Your task to perform on an android device: Open Yahoo.com Image 0: 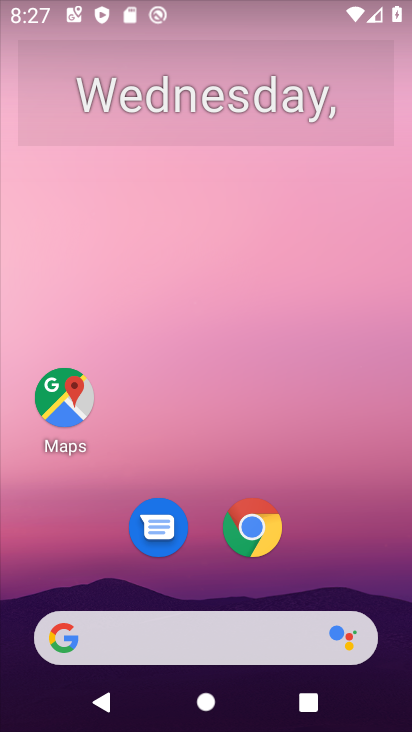
Step 0: click (256, 531)
Your task to perform on an android device: Open Yahoo.com Image 1: 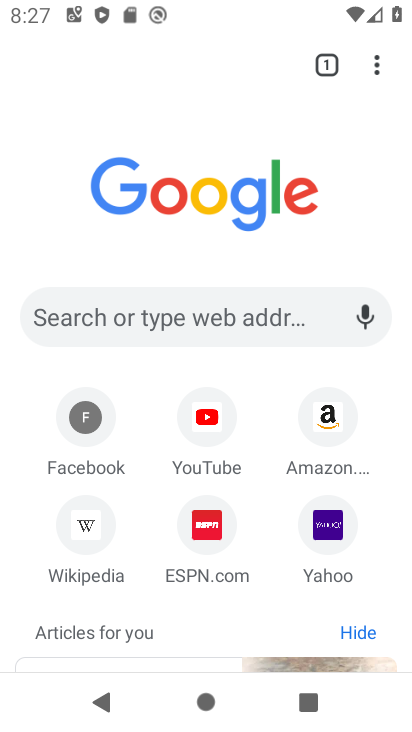
Step 1: click (328, 519)
Your task to perform on an android device: Open Yahoo.com Image 2: 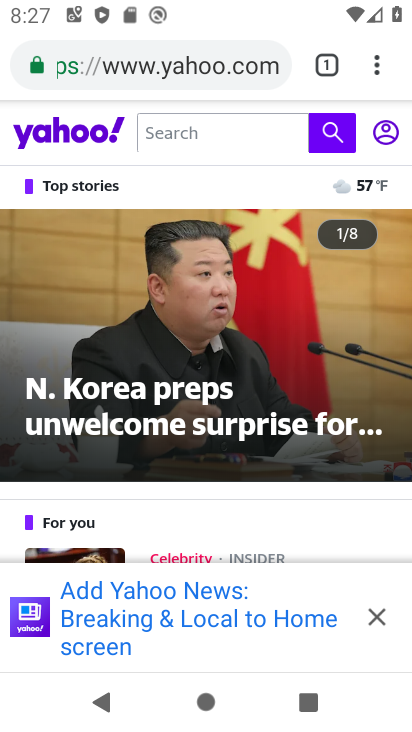
Step 2: task complete